Your task to perform on an android device: What is the news today? Image 0: 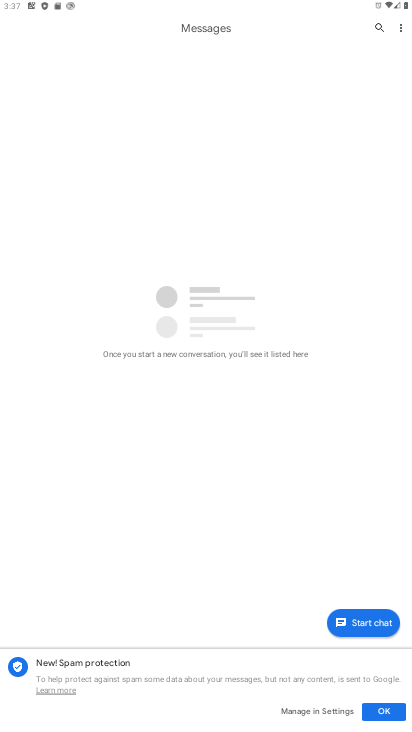
Step 0: press home button
Your task to perform on an android device: What is the news today? Image 1: 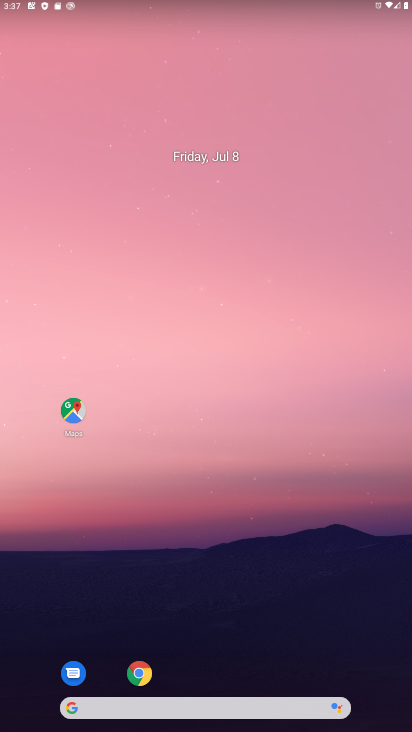
Step 1: click (145, 673)
Your task to perform on an android device: What is the news today? Image 2: 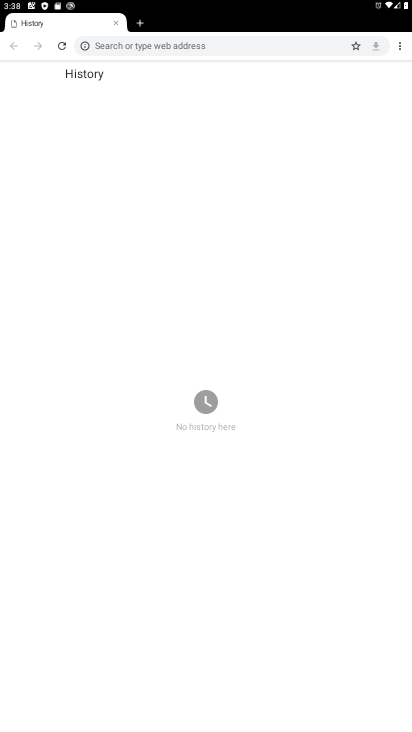
Step 2: click (260, 43)
Your task to perform on an android device: What is the news today? Image 3: 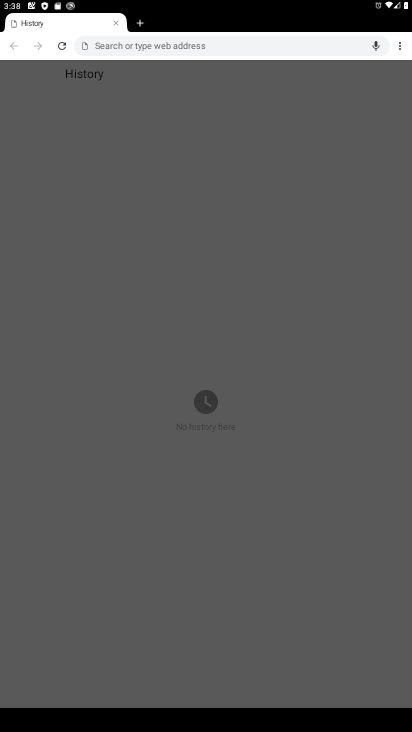
Step 3: type "what is the news today"
Your task to perform on an android device: What is the news today? Image 4: 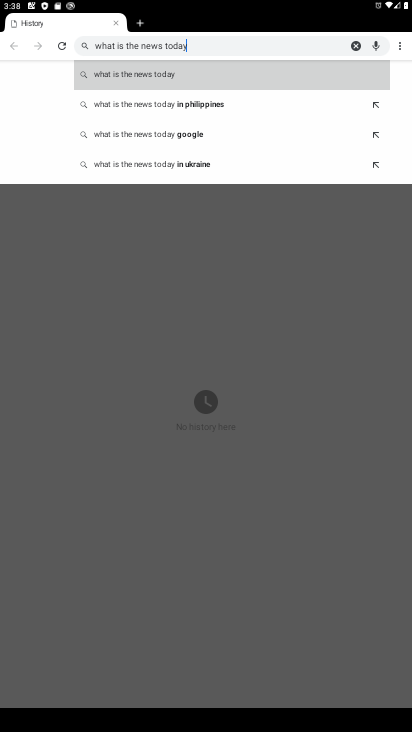
Step 4: click (203, 71)
Your task to perform on an android device: What is the news today? Image 5: 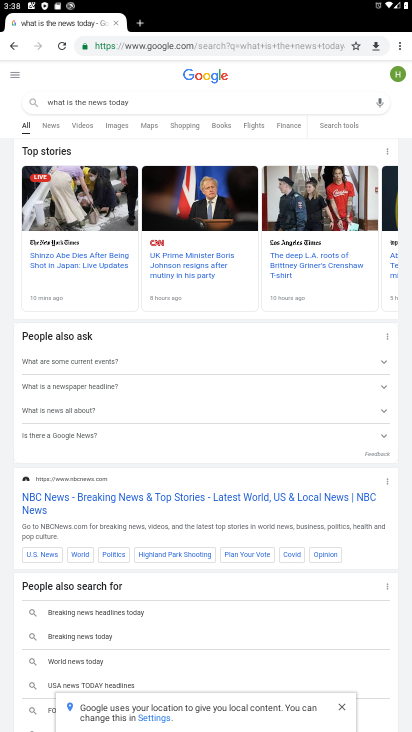
Step 5: task complete